Your task to perform on an android device: Open location settings Image 0: 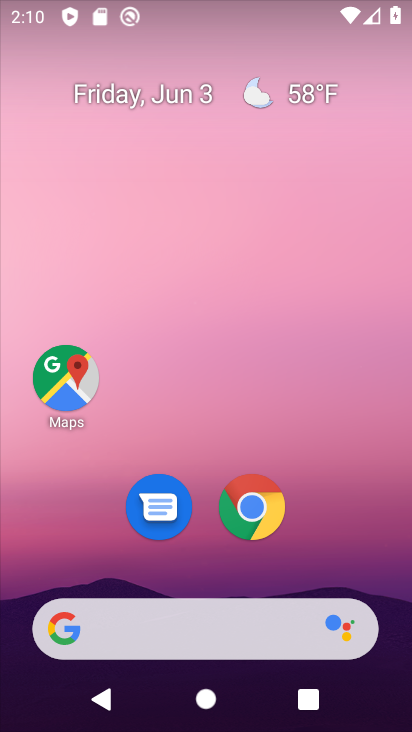
Step 0: press home button
Your task to perform on an android device: Open location settings Image 1: 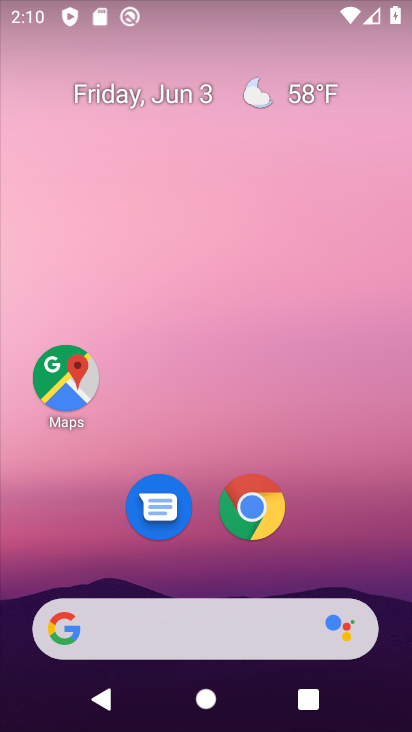
Step 1: drag from (328, 554) to (308, 60)
Your task to perform on an android device: Open location settings Image 2: 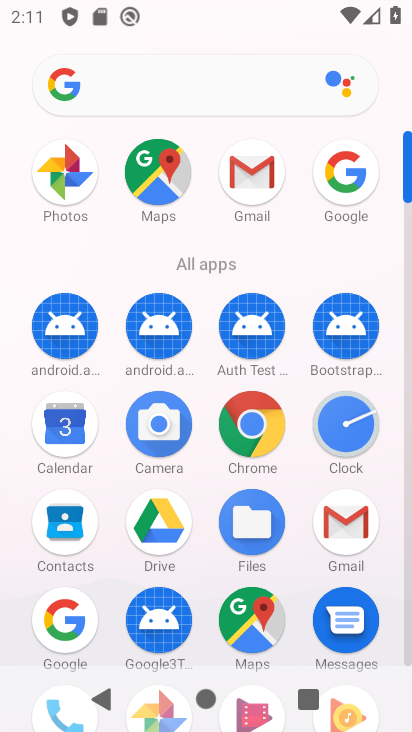
Step 2: drag from (295, 575) to (282, 100)
Your task to perform on an android device: Open location settings Image 3: 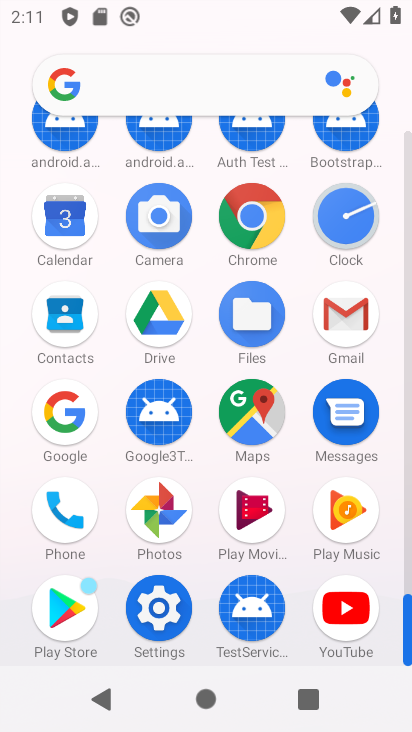
Step 3: click (170, 586)
Your task to perform on an android device: Open location settings Image 4: 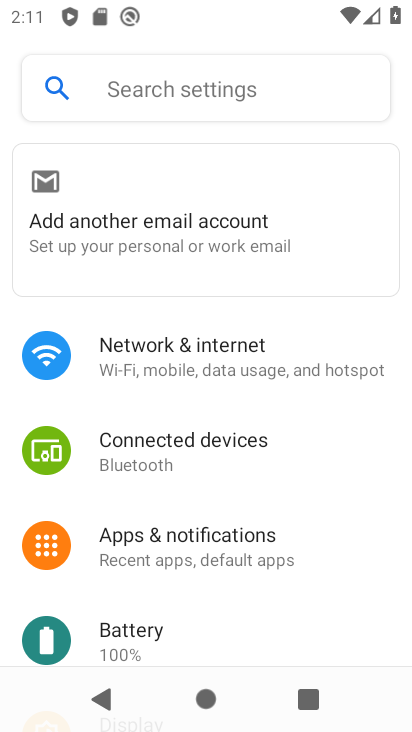
Step 4: drag from (236, 610) to (250, 80)
Your task to perform on an android device: Open location settings Image 5: 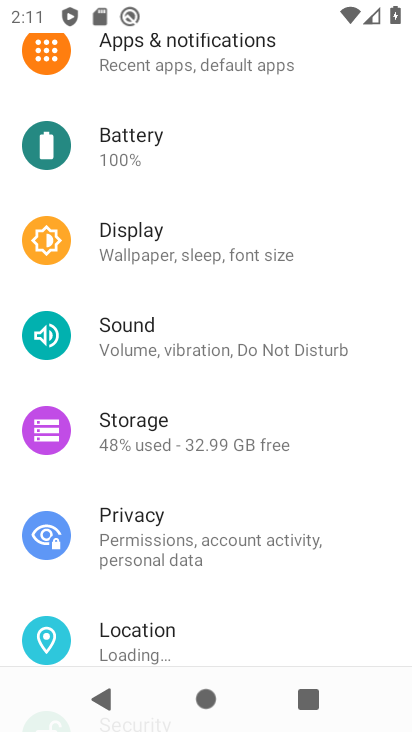
Step 5: click (192, 621)
Your task to perform on an android device: Open location settings Image 6: 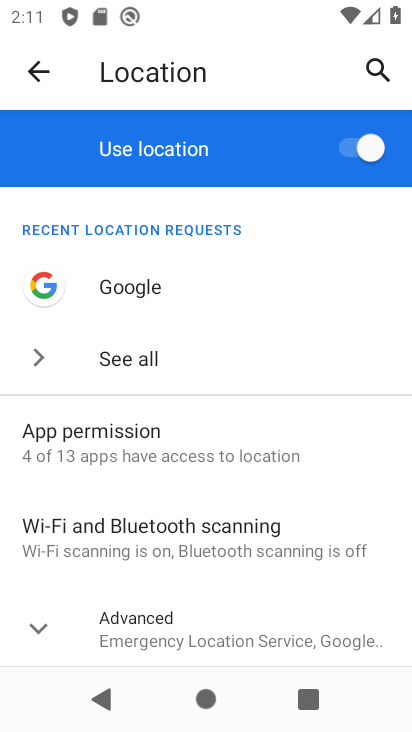
Step 6: task complete